Your task to perform on an android device: find photos in the google photos app Image 0: 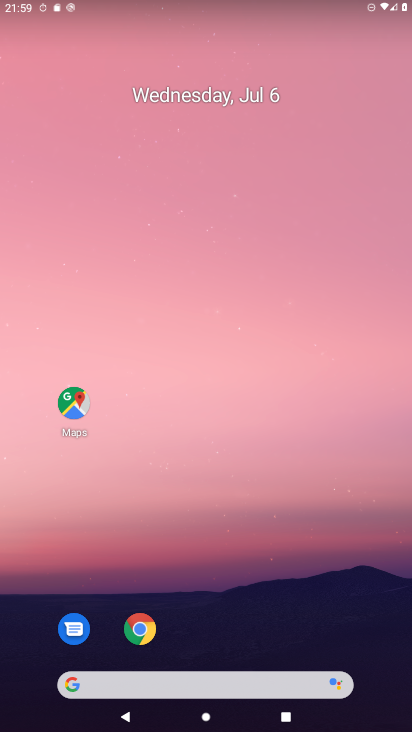
Step 0: drag from (236, 728) to (236, 648)
Your task to perform on an android device: find photos in the google photos app Image 1: 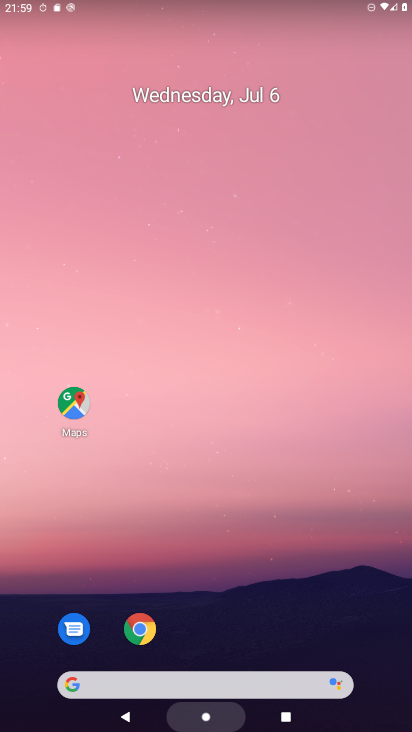
Step 1: drag from (228, 259) to (228, 87)
Your task to perform on an android device: find photos in the google photos app Image 2: 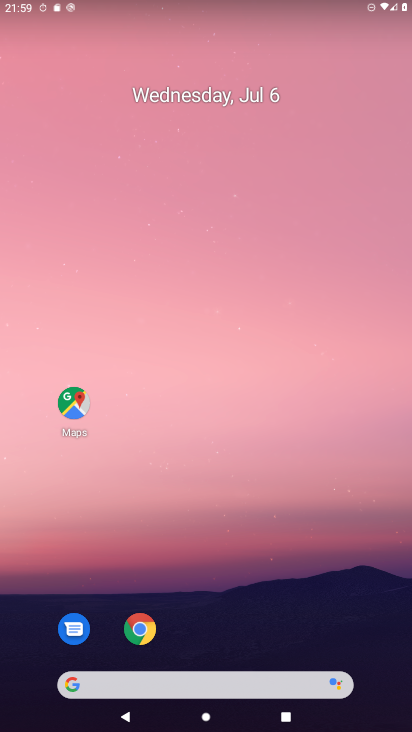
Step 2: drag from (246, 677) to (204, 78)
Your task to perform on an android device: find photos in the google photos app Image 3: 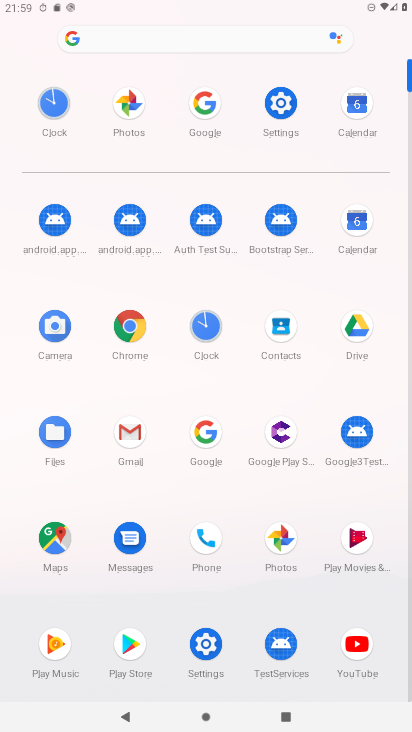
Step 3: click (281, 540)
Your task to perform on an android device: find photos in the google photos app Image 4: 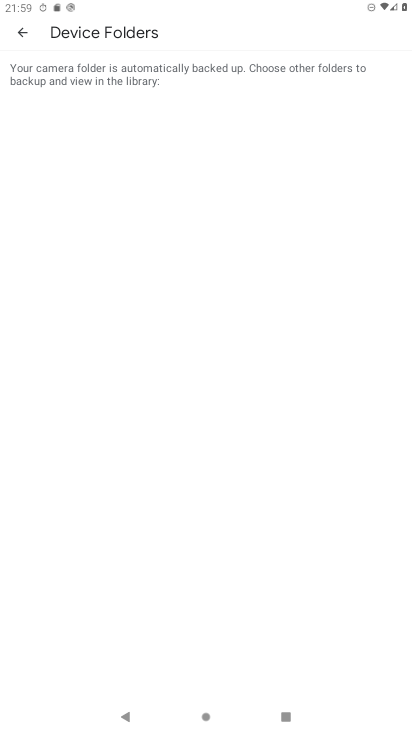
Step 4: click (31, 31)
Your task to perform on an android device: find photos in the google photos app Image 5: 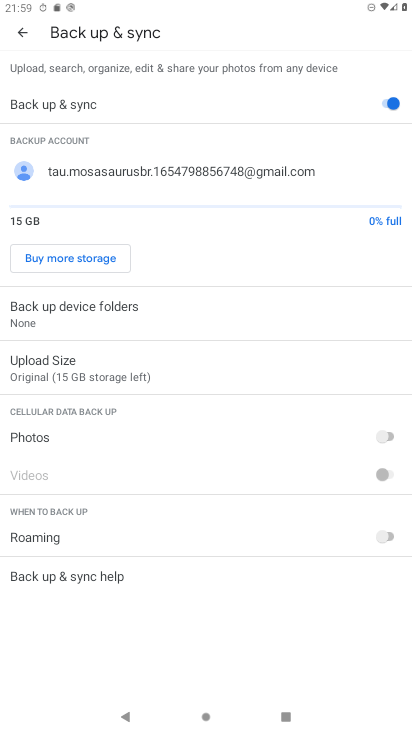
Step 5: click (27, 36)
Your task to perform on an android device: find photos in the google photos app Image 6: 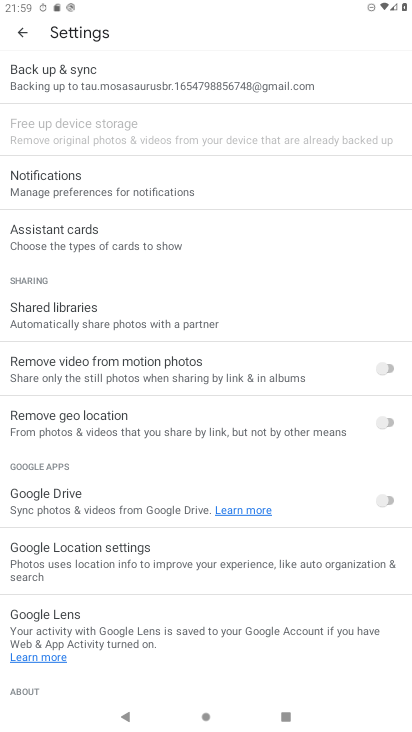
Step 6: click (23, 28)
Your task to perform on an android device: find photos in the google photos app Image 7: 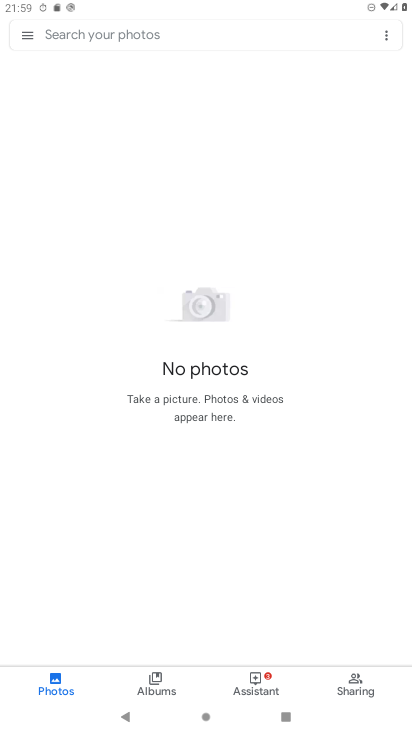
Step 7: task complete